Your task to perform on an android device: Search for Mexican restaurants on Maps Image 0: 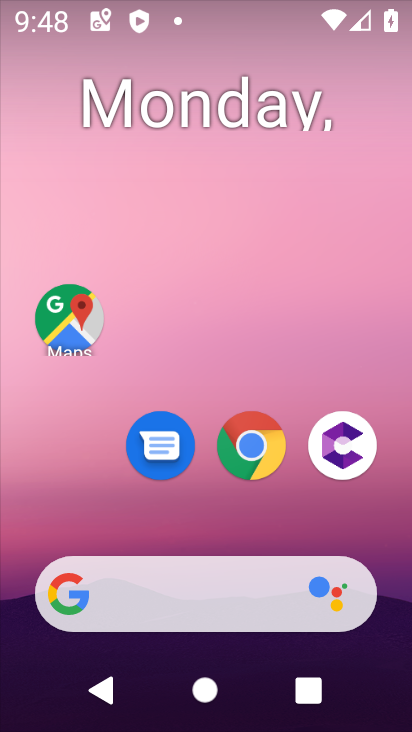
Step 0: press home button
Your task to perform on an android device: Search for Mexican restaurants on Maps Image 1: 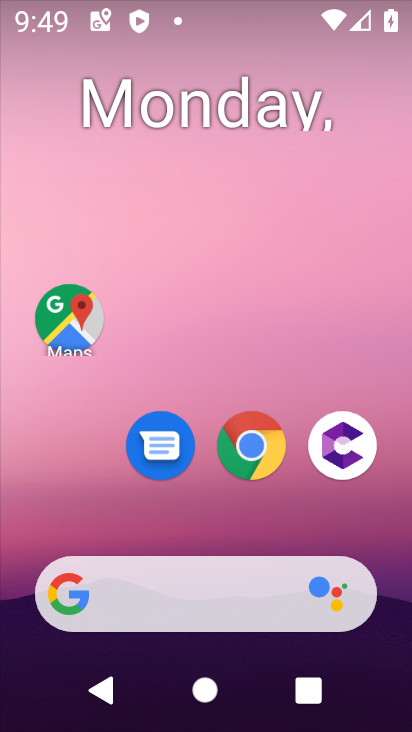
Step 1: click (56, 317)
Your task to perform on an android device: Search for Mexican restaurants on Maps Image 2: 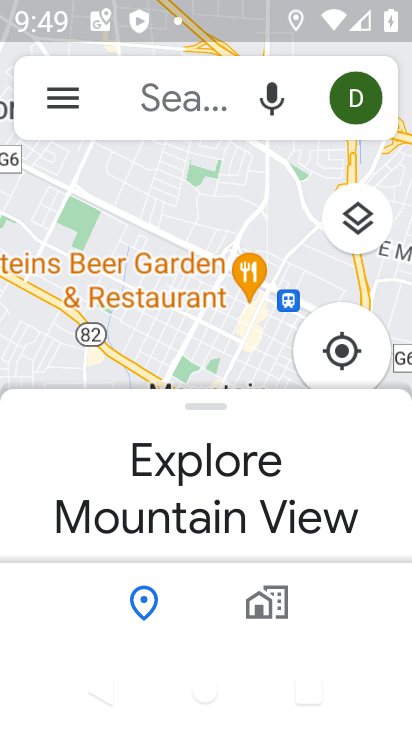
Step 2: click (200, 91)
Your task to perform on an android device: Search for Mexican restaurants on Maps Image 3: 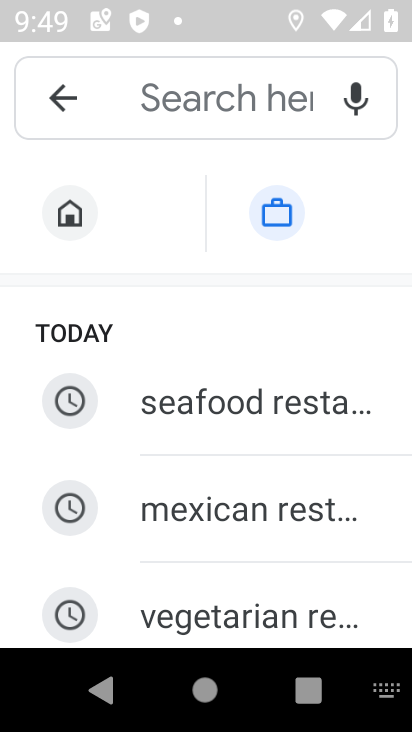
Step 3: click (241, 514)
Your task to perform on an android device: Search for Mexican restaurants on Maps Image 4: 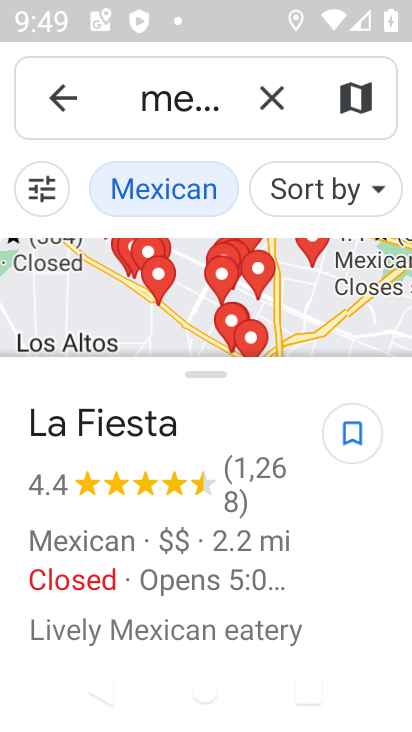
Step 4: task complete